Your task to perform on an android device: turn smart compose on in the gmail app Image 0: 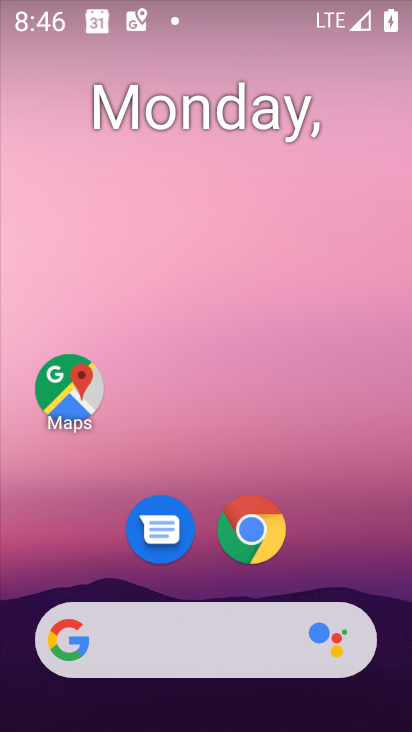
Step 0: press home button
Your task to perform on an android device: turn smart compose on in the gmail app Image 1: 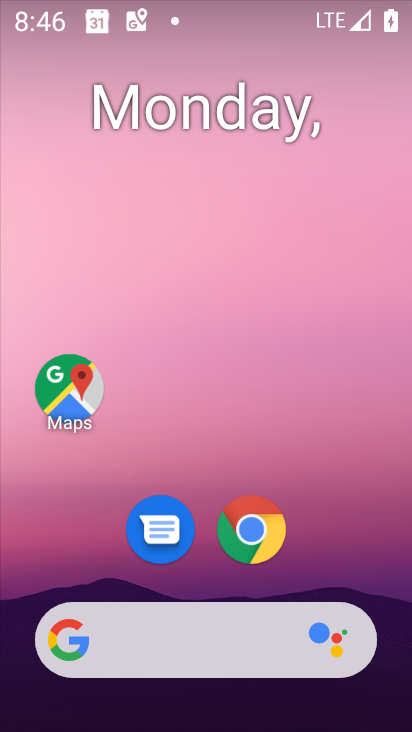
Step 1: drag from (11, 650) to (306, 158)
Your task to perform on an android device: turn smart compose on in the gmail app Image 2: 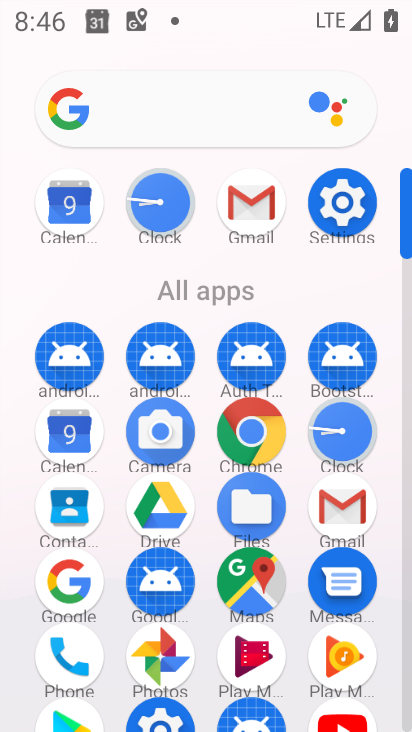
Step 2: click (267, 193)
Your task to perform on an android device: turn smart compose on in the gmail app Image 3: 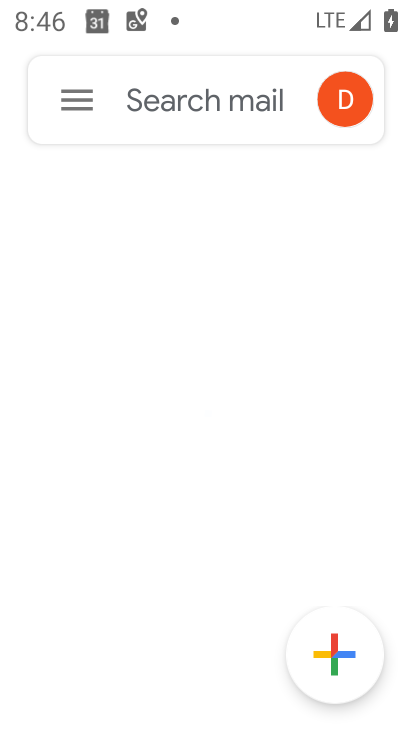
Step 3: click (82, 111)
Your task to perform on an android device: turn smart compose on in the gmail app Image 4: 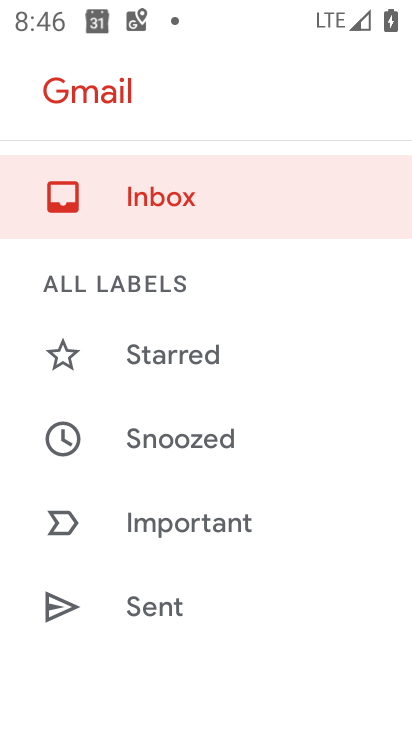
Step 4: drag from (154, 649) to (270, 161)
Your task to perform on an android device: turn smart compose on in the gmail app Image 5: 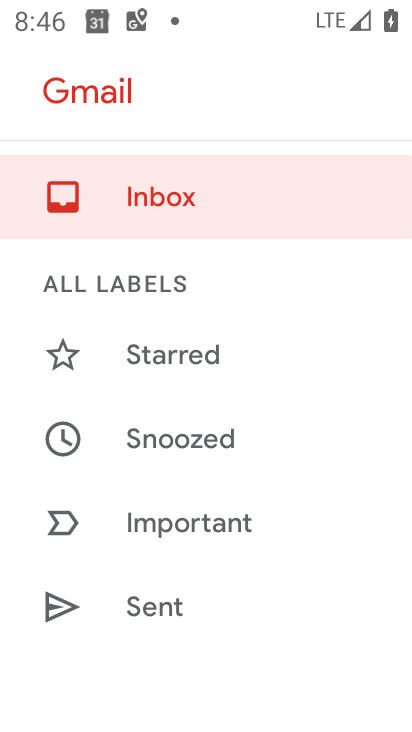
Step 5: drag from (112, 636) to (235, 175)
Your task to perform on an android device: turn smart compose on in the gmail app Image 6: 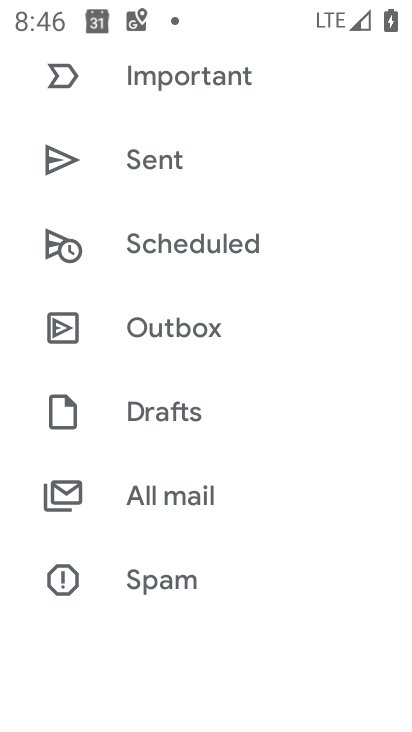
Step 6: drag from (95, 605) to (293, 136)
Your task to perform on an android device: turn smart compose on in the gmail app Image 7: 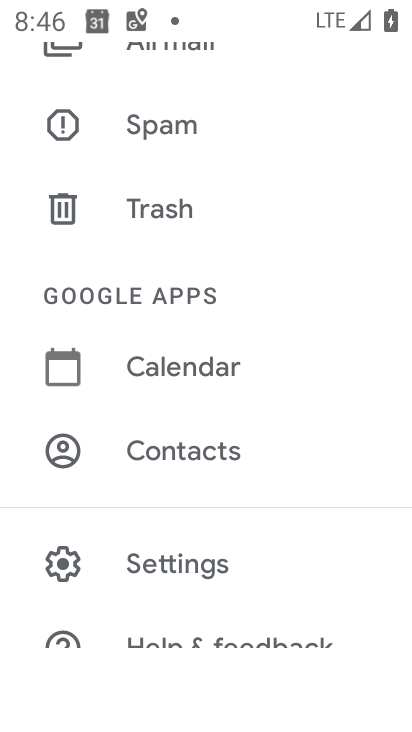
Step 7: click (148, 561)
Your task to perform on an android device: turn smart compose on in the gmail app Image 8: 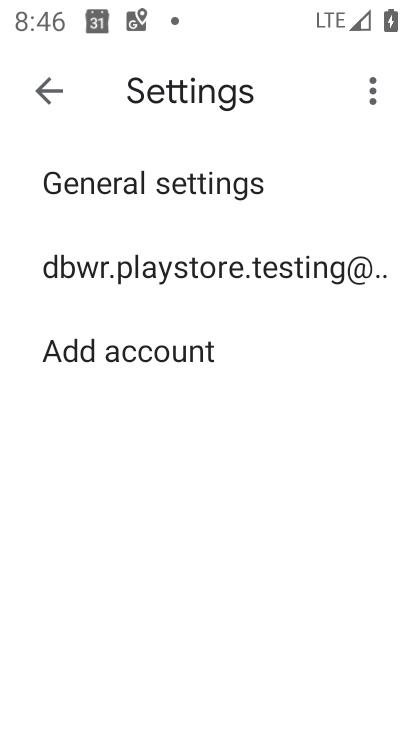
Step 8: click (227, 259)
Your task to perform on an android device: turn smart compose on in the gmail app Image 9: 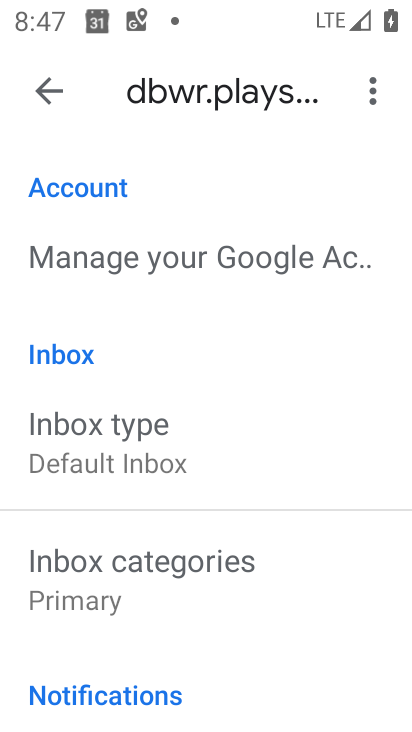
Step 9: task complete